Your task to perform on an android device: change the upload size in google photos Image 0: 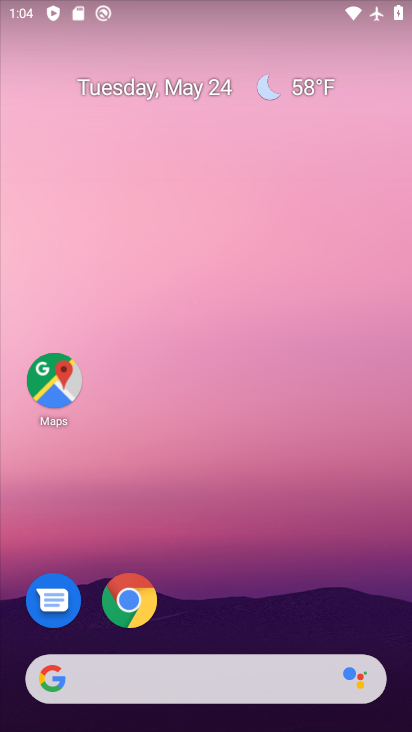
Step 0: drag from (274, 417) to (200, 0)
Your task to perform on an android device: change the upload size in google photos Image 1: 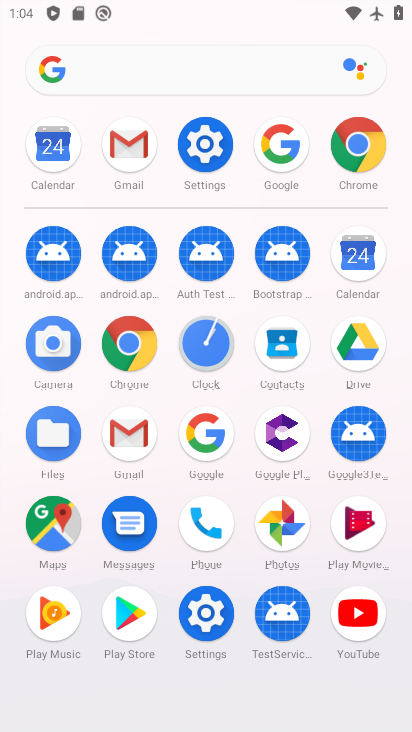
Step 1: click (295, 523)
Your task to perform on an android device: change the upload size in google photos Image 2: 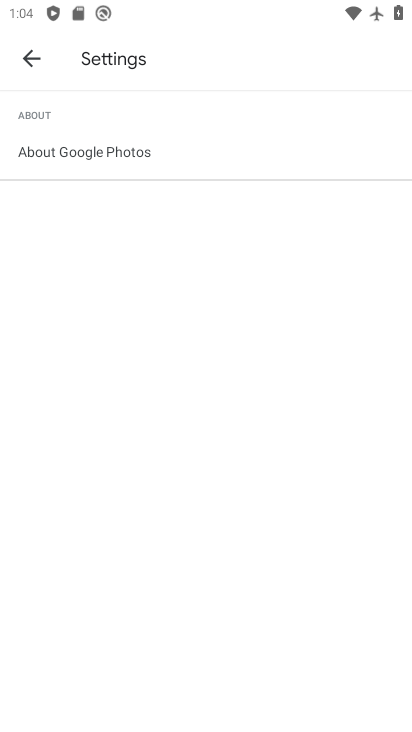
Step 2: click (32, 54)
Your task to perform on an android device: change the upload size in google photos Image 3: 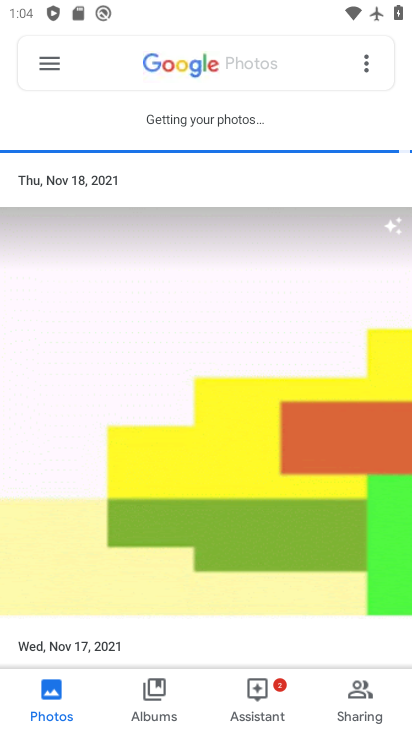
Step 3: click (52, 61)
Your task to perform on an android device: change the upload size in google photos Image 4: 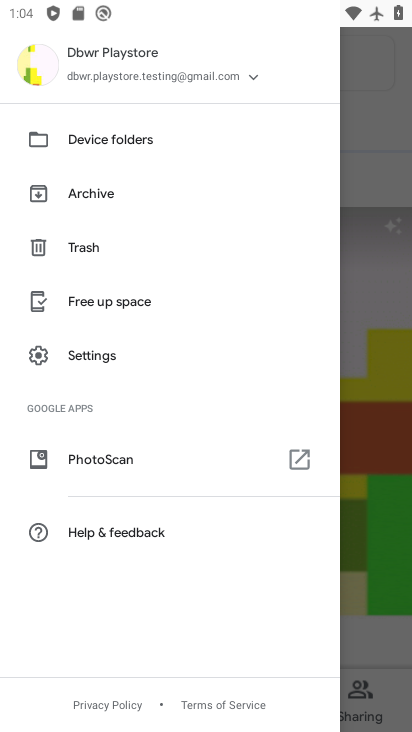
Step 4: click (115, 348)
Your task to perform on an android device: change the upload size in google photos Image 5: 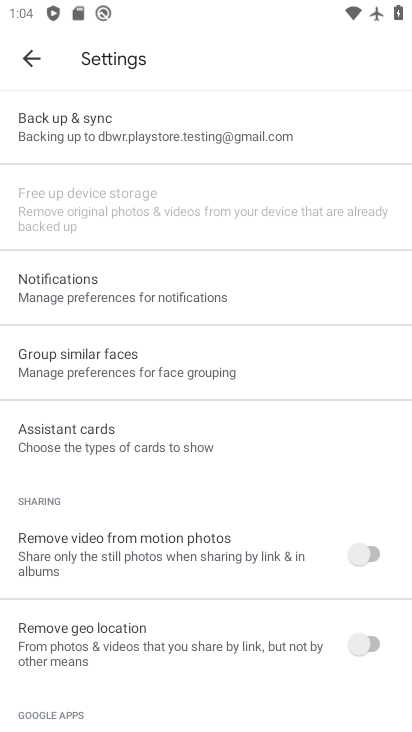
Step 5: drag from (215, 615) to (183, 698)
Your task to perform on an android device: change the upload size in google photos Image 6: 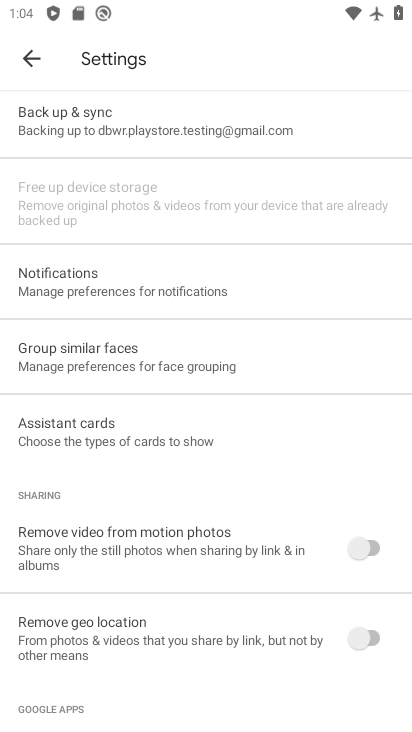
Step 6: click (165, 130)
Your task to perform on an android device: change the upload size in google photos Image 7: 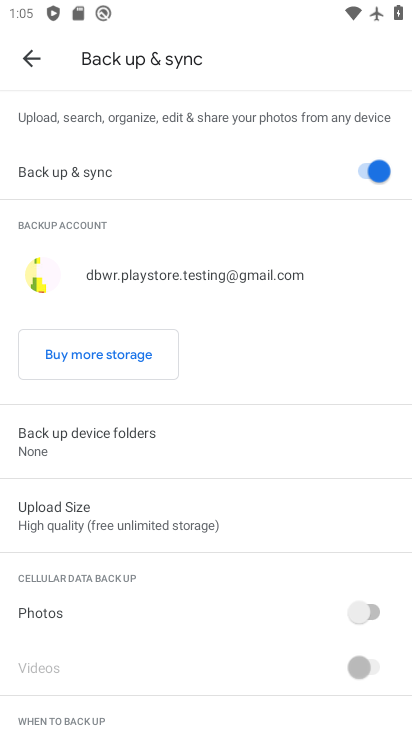
Step 7: click (125, 521)
Your task to perform on an android device: change the upload size in google photos Image 8: 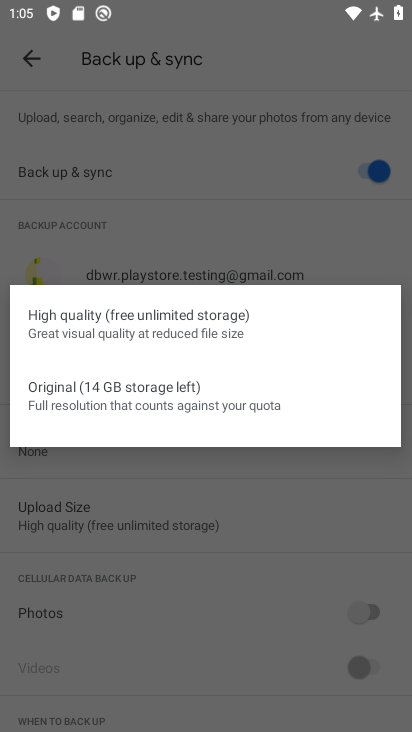
Step 8: click (131, 398)
Your task to perform on an android device: change the upload size in google photos Image 9: 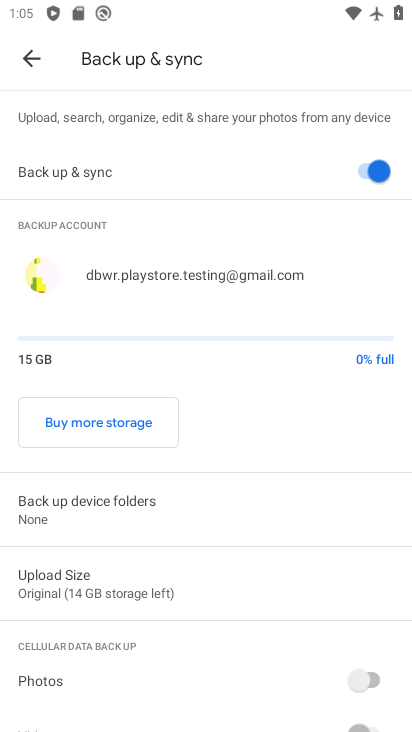
Step 9: task complete